Your task to perform on an android device: change alarm snooze length Image 0: 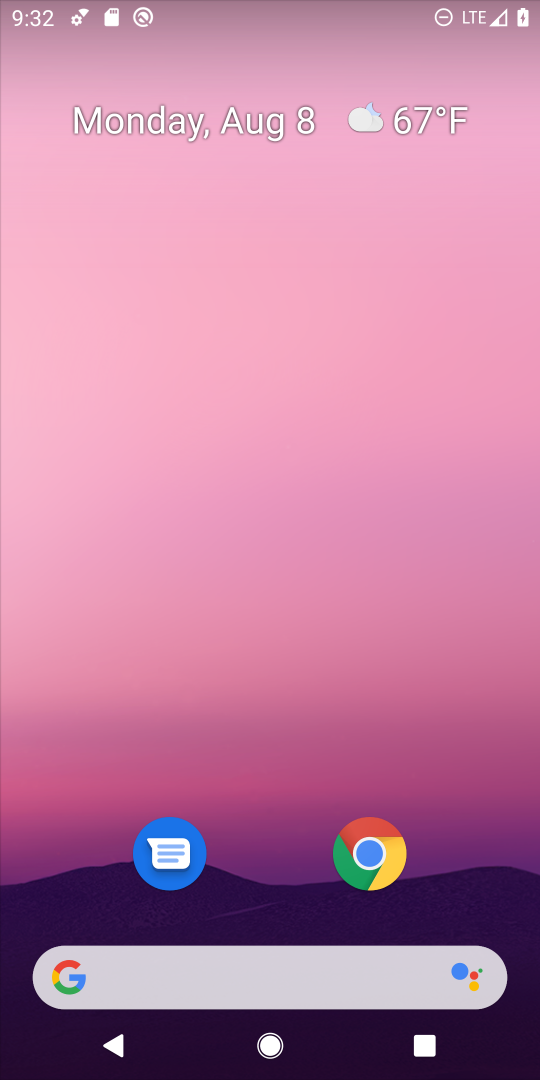
Step 0: drag from (232, 909) to (186, 22)
Your task to perform on an android device: change alarm snooze length Image 1: 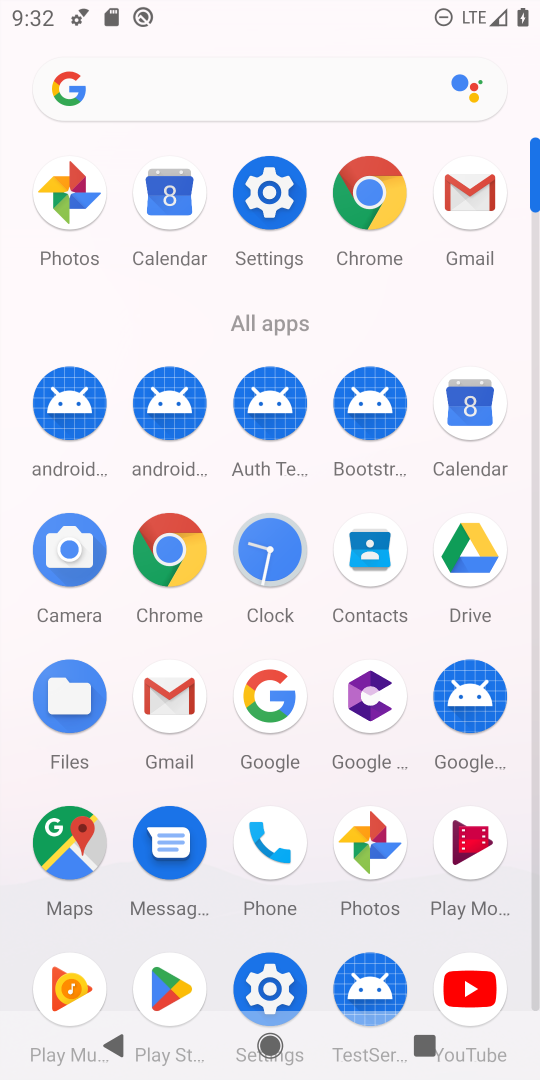
Step 1: click (282, 540)
Your task to perform on an android device: change alarm snooze length Image 2: 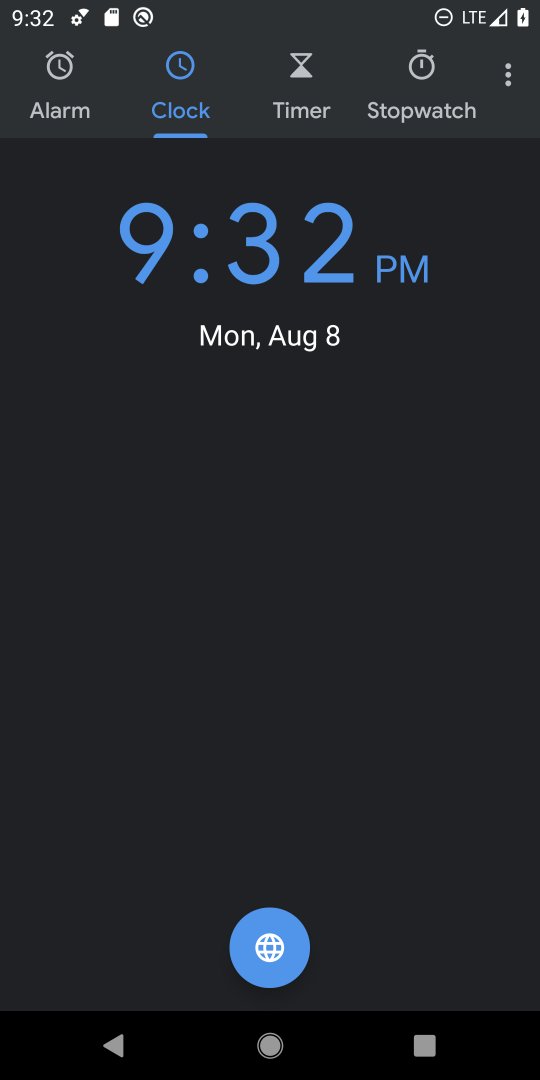
Step 2: click (512, 73)
Your task to perform on an android device: change alarm snooze length Image 3: 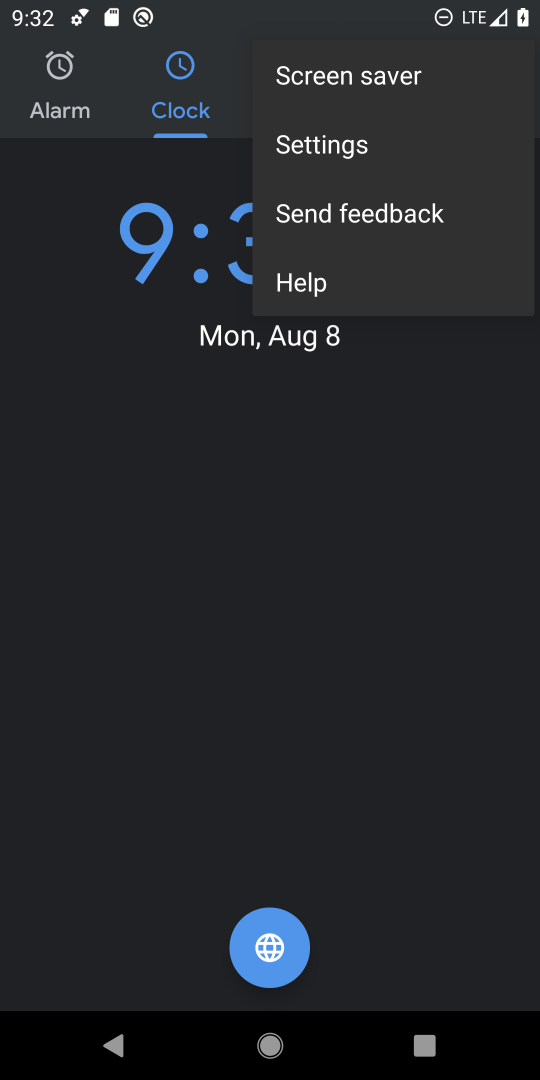
Step 3: click (335, 135)
Your task to perform on an android device: change alarm snooze length Image 4: 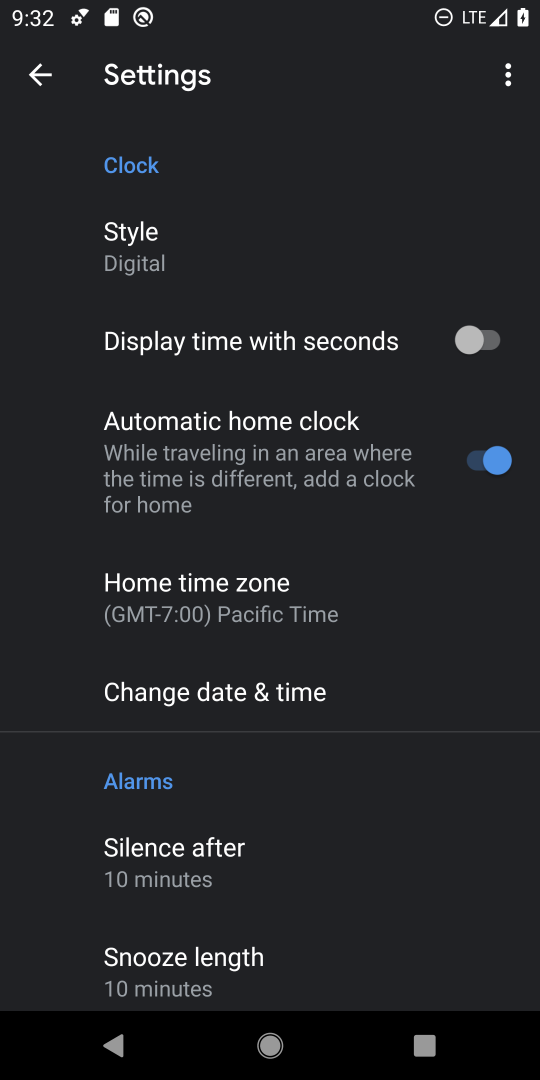
Step 4: click (259, 960)
Your task to perform on an android device: change alarm snooze length Image 5: 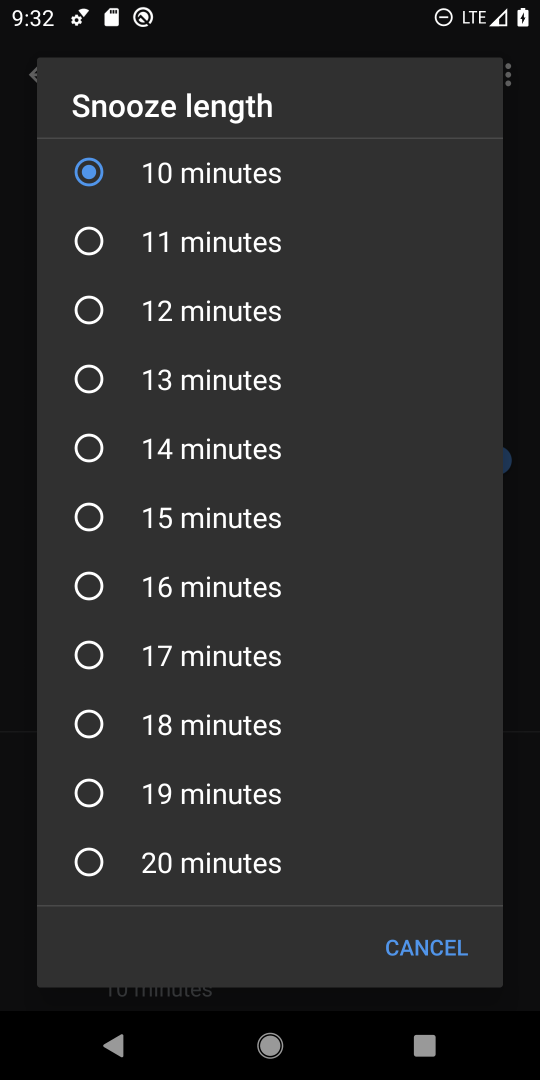
Step 5: click (130, 240)
Your task to perform on an android device: change alarm snooze length Image 6: 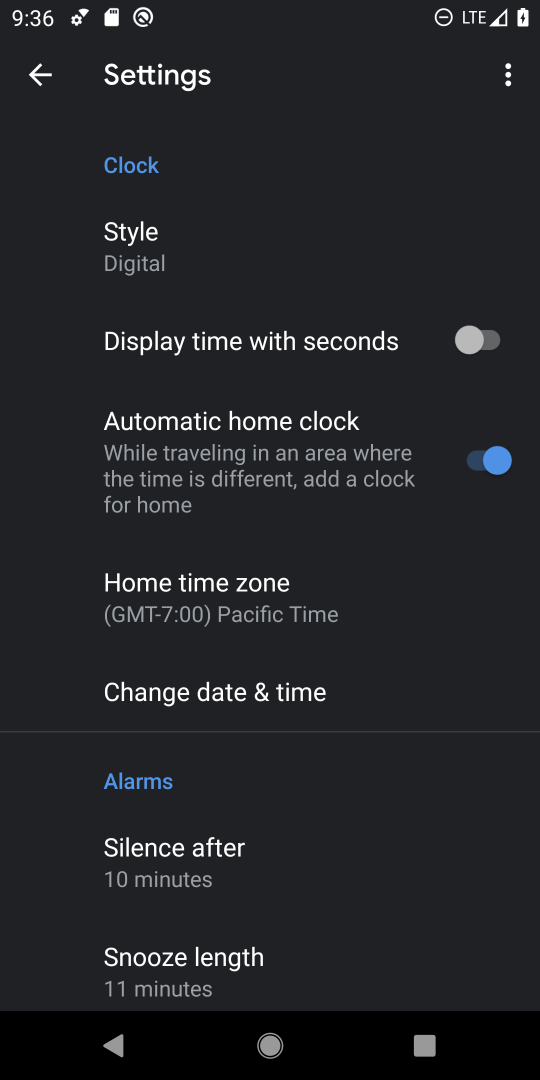
Step 6: task complete